Your task to perform on an android device: open app "Firefox Browser" (install if not already installed), go to login, and select forgot password Image 0: 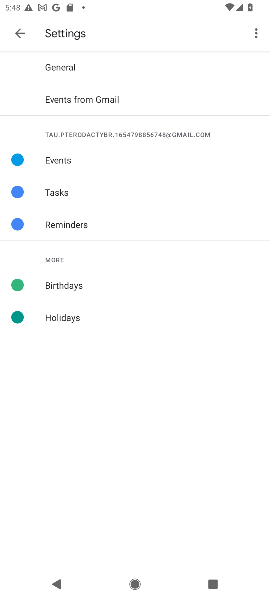
Step 0: press home button
Your task to perform on an android device: open app "Firefox Browser" (install if not already installed), go to login, and select forgot password Image 1: 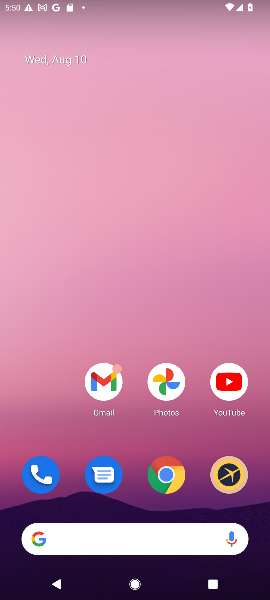
Step 1: drag from (142, 525) to (123, 201)
Your task to perform on an android device: open app "Firefox Browser" (install if not already installed), go to login, and select forgot password Image 2: 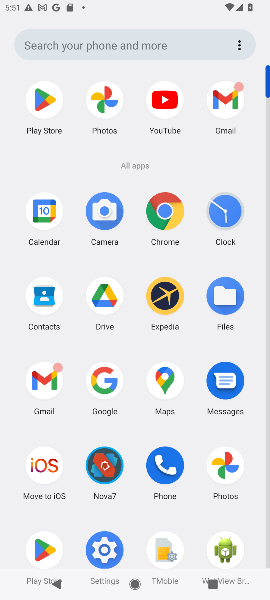
Step 2: click (37, 552)
Your task to perform on an android device: open app "Firefox Browser" (install if not already installed), go to login, and select forgot password Image 3: 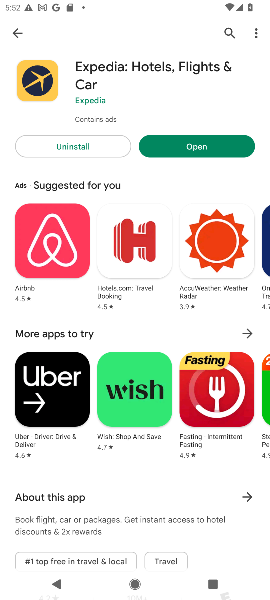
Step 3: click (231, 30)
Your task to perform on an android device: open app "Firefox Browser" (install if not already installed), go to login, and select forgot password Image 4: 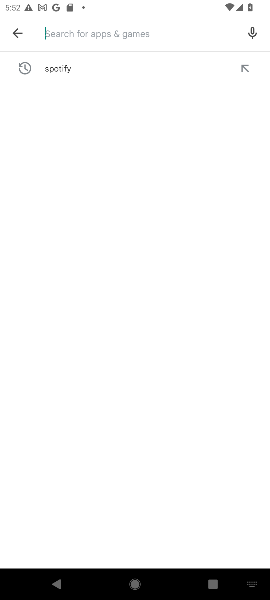
Step 4: type "Firefox Browser"
Your task to perform on an android device: open app "Firefox Browser" (install if not already installed), go to login, and select forgot password Image 5: 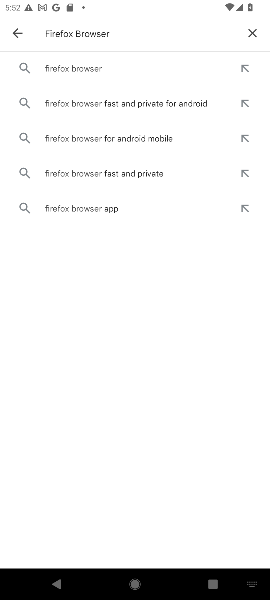
Step 5: click (68, 69)
Your task to perform on an android device: open app "Firefox Browser" (install if not already installed), go to login, and select forgot password Image 6: 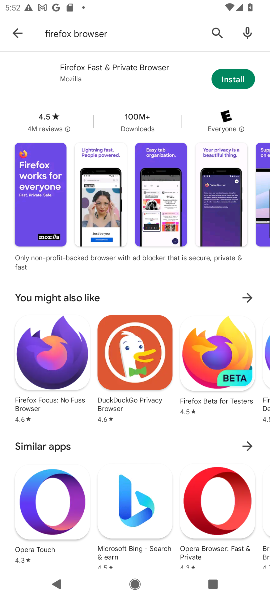
Step 6: click (222, 80)
Your task to perform on an android device: open app "Firefox Browser" (install if not already installed), go to login, and select forgot password Image 7: 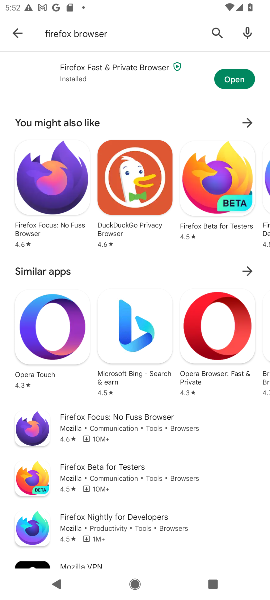
Step 7: click (225, 80)
Your task to perform on an android device: open app "Firefox Browser" (install if not already installed), go to login, and select forgot password Image 8: 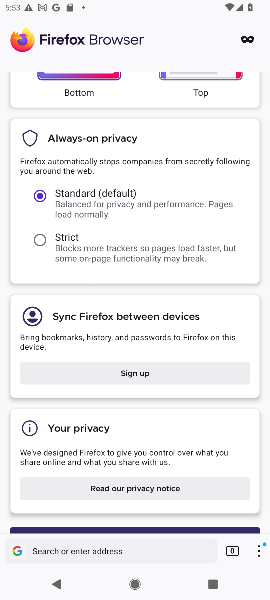
Step 8: task complete